Your task to perform on an android device: Check the news Image 0: 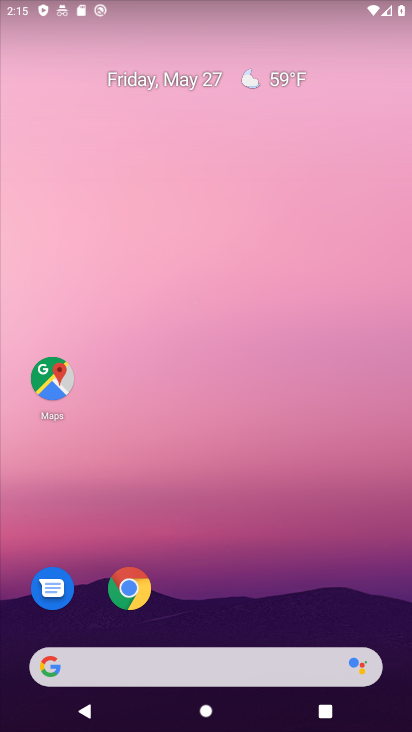
Step 0: drag from (266, 655) to (162, 169)
Your task to perform on an android device: Check the news Image 1: 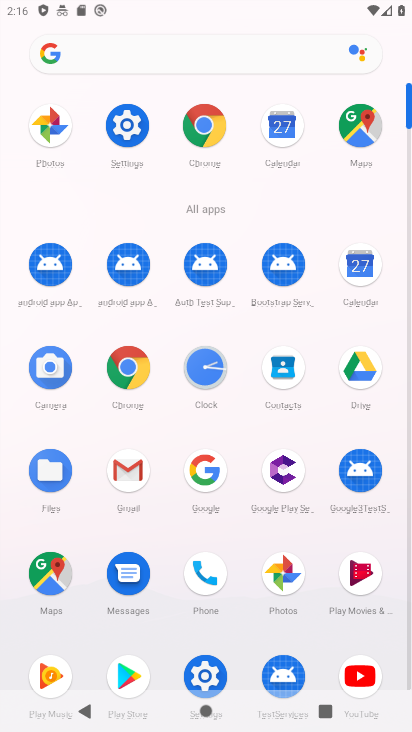
Step 1: press back button
Your task to perform on an android device: Check the news Image 2: 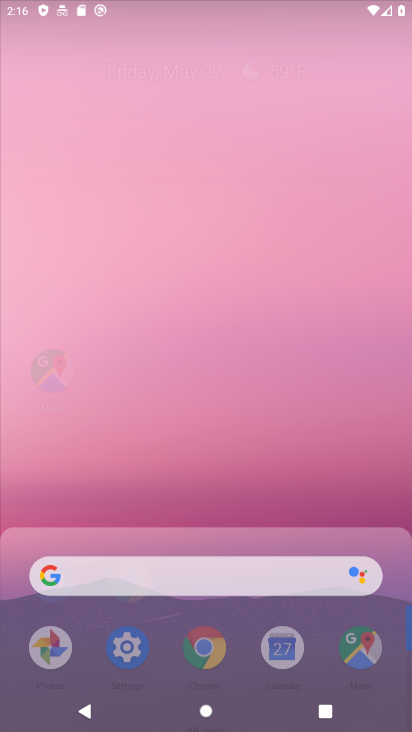
Step 2: press back button
Your task to perform on an android device: Check the news Image 3: 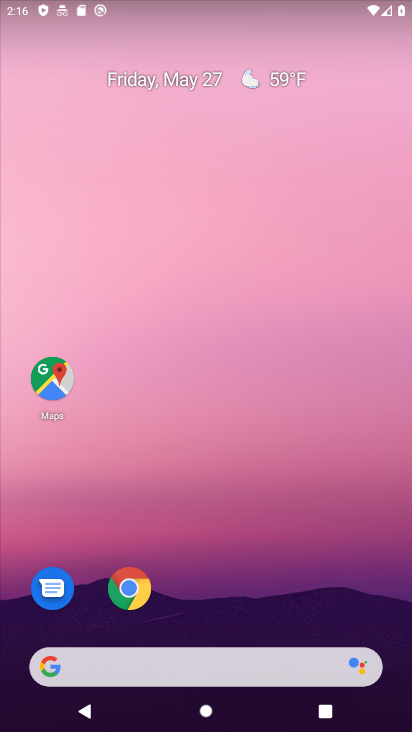
Step 3: press back button
Your task to perform on an android device: Check the news Image 4: 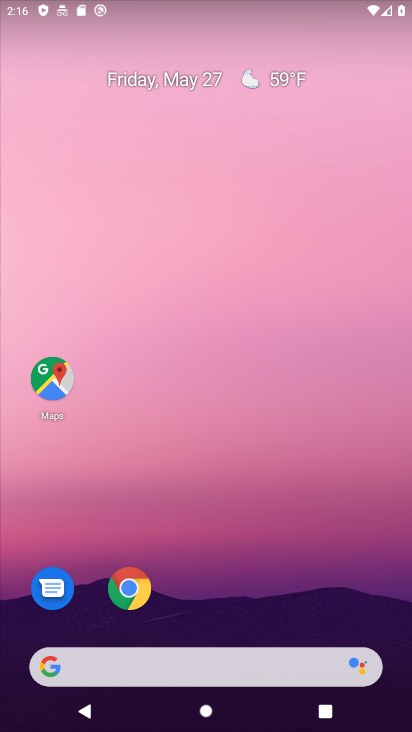
Step 4: drag from (9, 228) to (360, 420)
Your task to perform on an android device: Check the news Image 5: 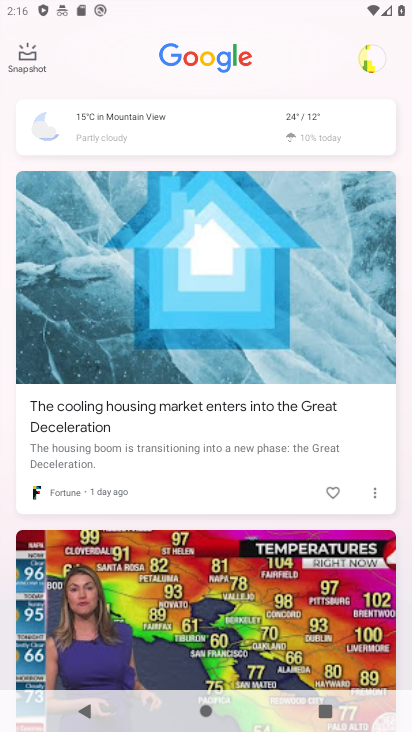
Step 5: click (174, 160)
Your task to perform on an android device: Check the news Image 6: 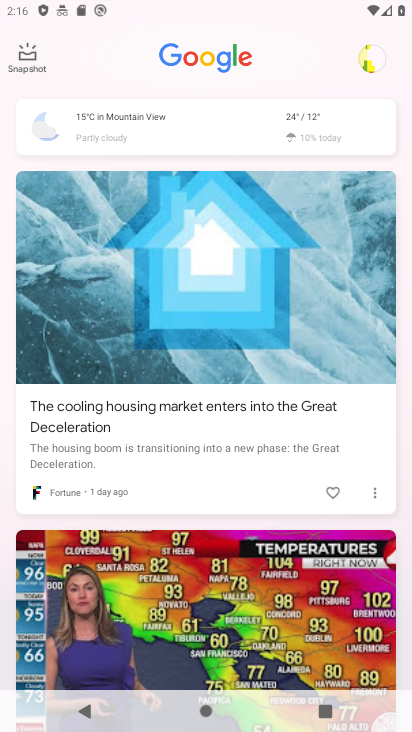
Step 6: task complete